Your task to perform on an android device: Open Google Image 0: 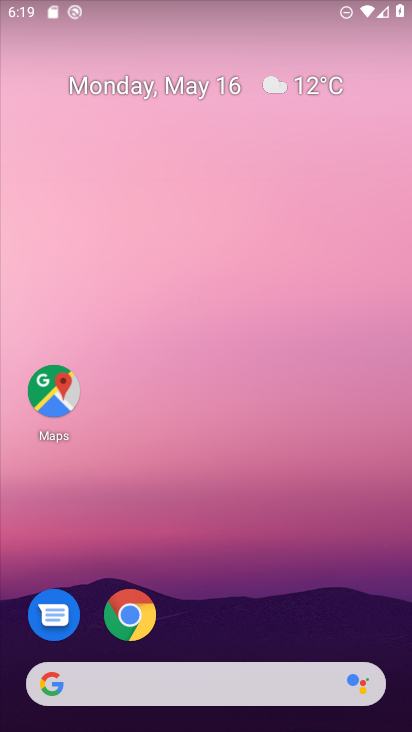
Step 0: drag from (314, 221) to (322, 127)
Your task to perform on an android device: Open Google Image 1: 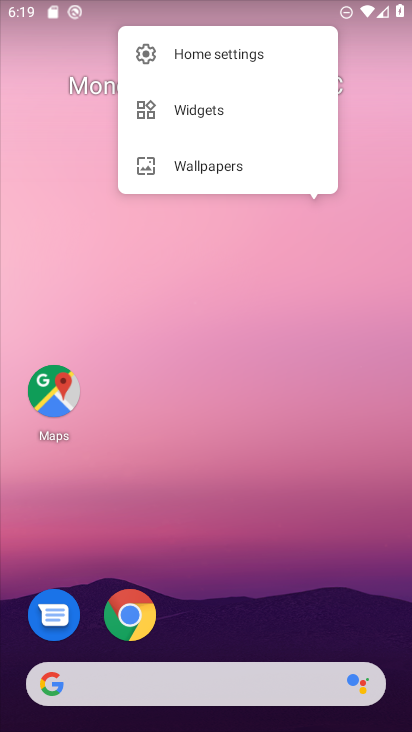
Step 1: click (238, 523)
Your task to perform on an android device: Open Google Image 2: 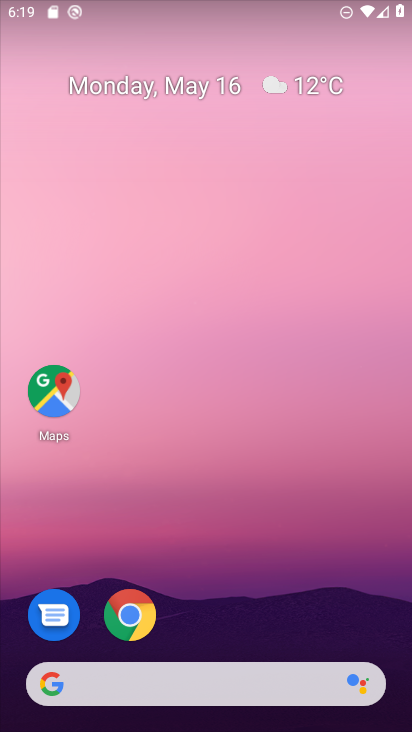
Step 2: drag from (227, 607) to (296, 64)
Your task to perform on an android device: Open Google Image 3: 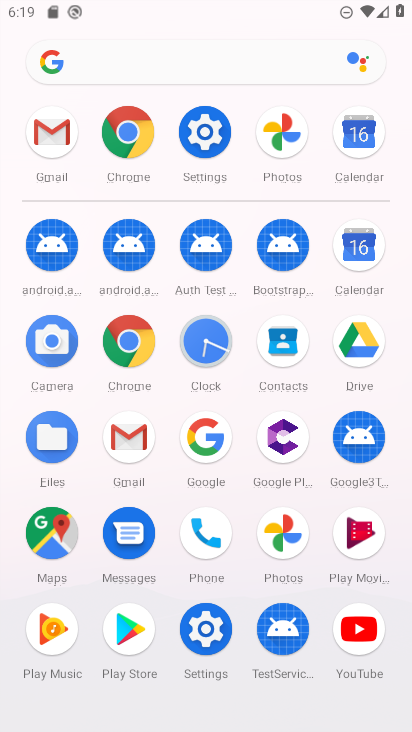
Step 3: click (211, 446)
Your task to perform on an android device: Open Google Image 4: 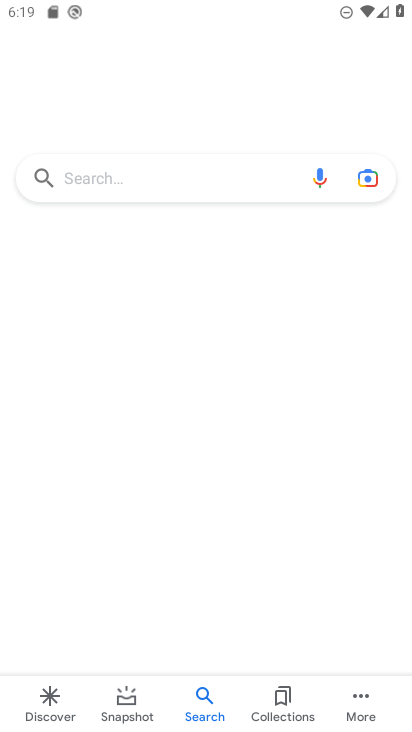
Step 4: task complete